Your task to perform on an android device: Open Google Chrome and open the bookmarks view Image 0: 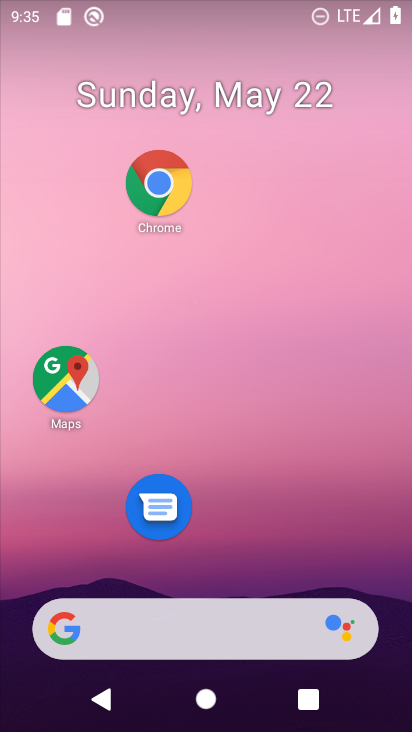
Step 0: click (172, 182)
Your task to perform on an android device: Open Google Chrome and open the bookmarks view Image 1: 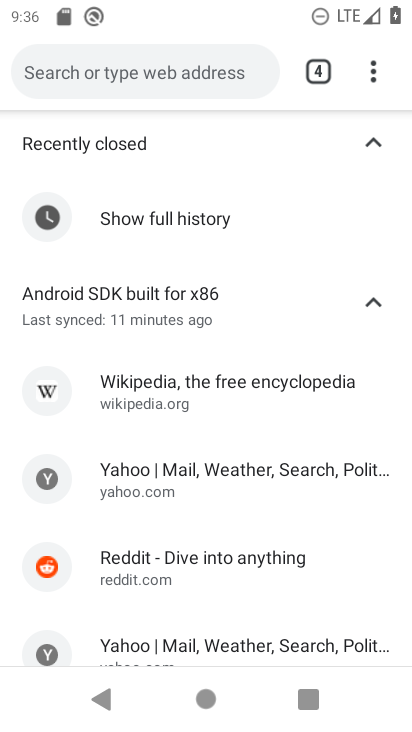
Step 1: task complete